Your task to perform on an android device: Open Youtube and go to the subscriptions tab Image 0: 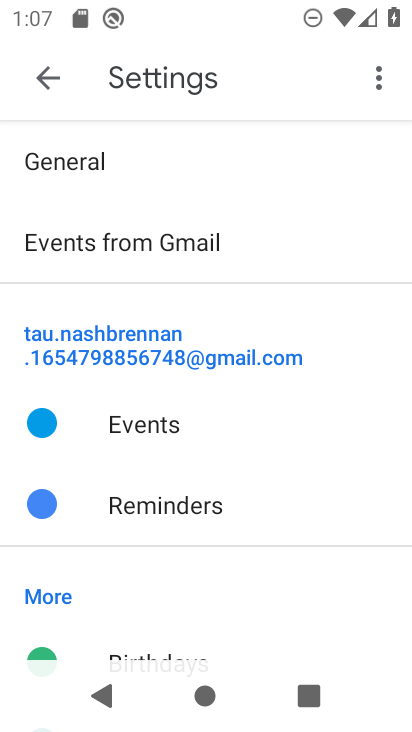
Step 0: press home button
Your task to perform on an android device: Open Youtube and go to the subscriptions tab Image 1: 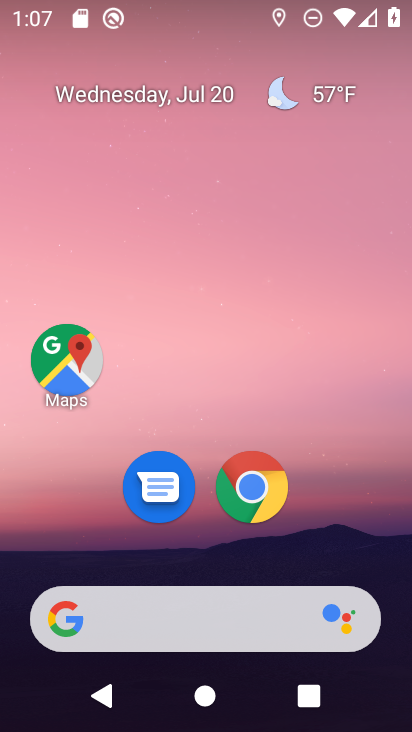
Step 1: drag from (337, 371) to (344, 27)
Your task to perform on an android device: Open Youtube and go to the subscriptions tab Image 2: 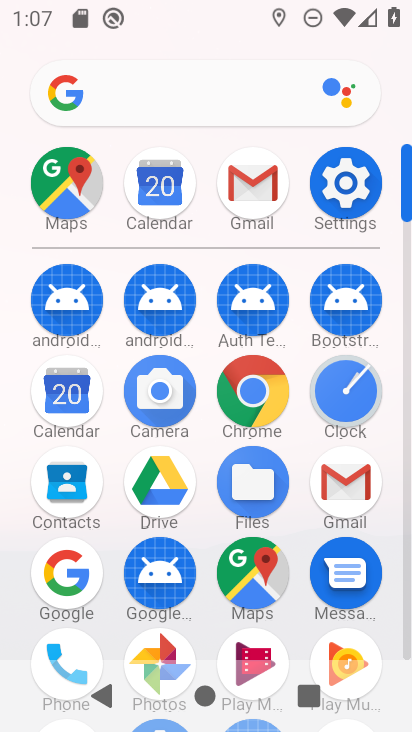
Step 2: drag from (407, 530) to (391, 390)
Your task to perform on an android device: Open Youtube and go to the subscriptions tab Image 3: 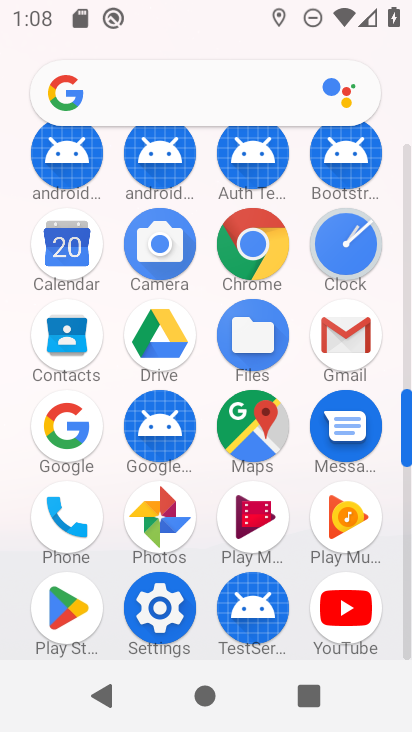
Step 3: click (346, 596)
Your task to perform on an android device: Open Youtube and go to the subscriptions tab Image 4: 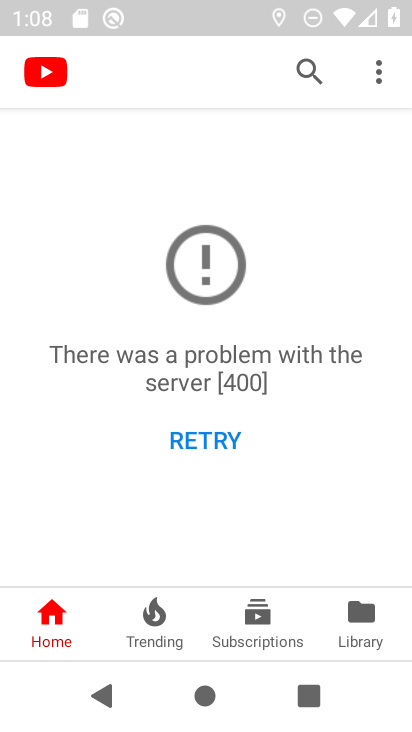
Step 4: click (264, 626)
Your task to perform on an android device: Open Youtube and go to the subscriptions tab Image 5: 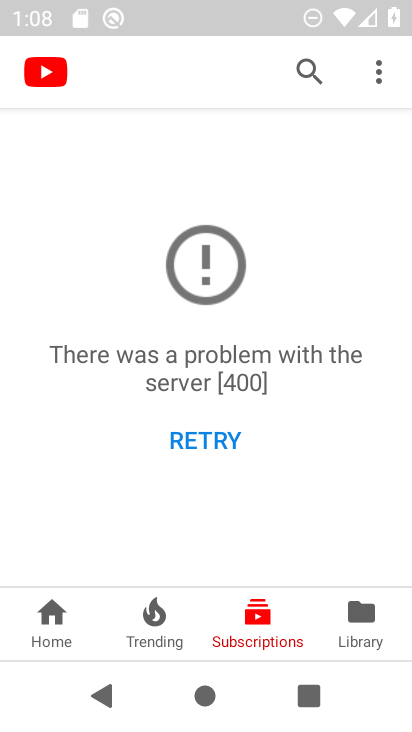
Step 5: task complete